Your task to perform on an android device: change the upload size in google photos Image 0: 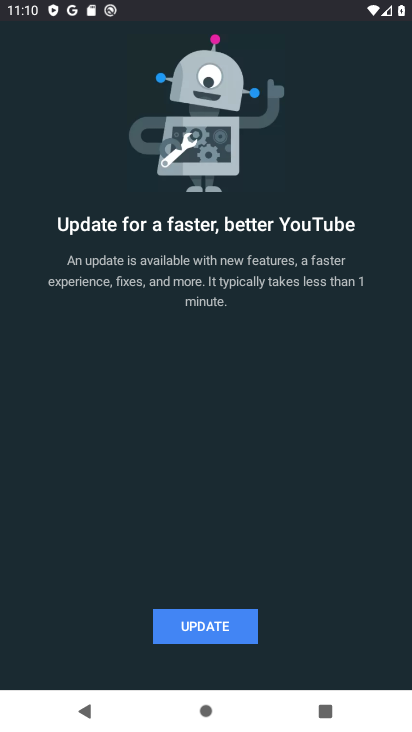
Step 0: press home button
Your task to perform on an android device: change the upload size in google photos Image 1: 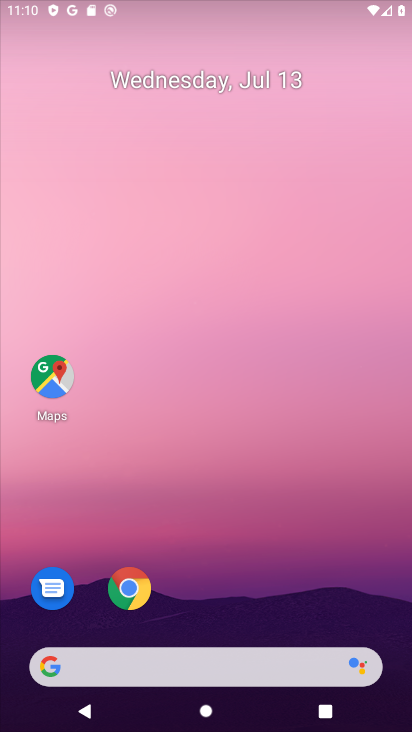
Step 1: drag from (236, 611) to (263, 94)
Your task to perform on an android device: change the upload size in google photos Image 2: 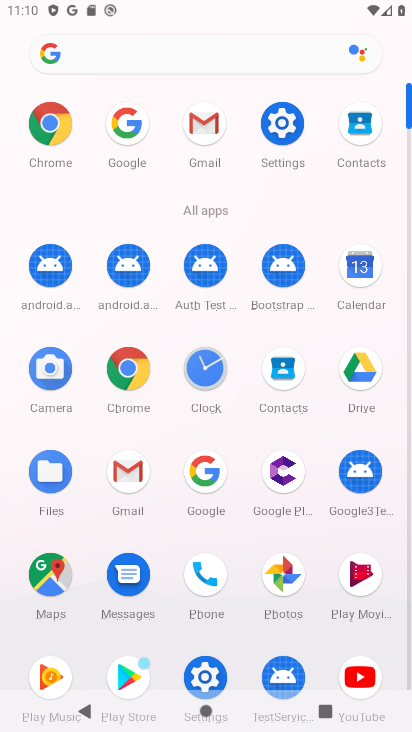
Step 2: click (281, 582)
Your task to perform on an android device: change the upload size in google photos Image 3: 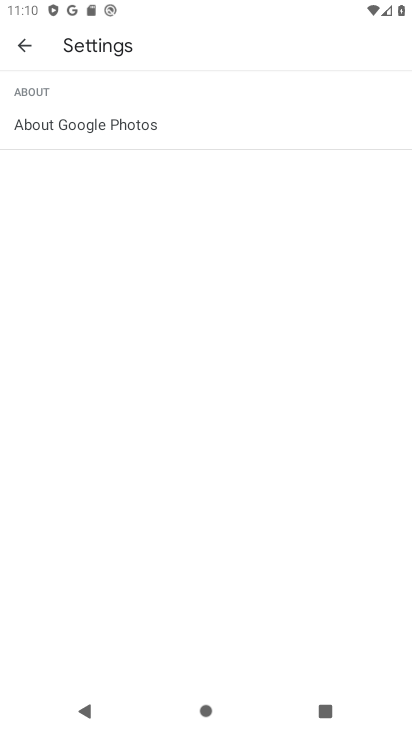
Step 3: press back button
Your task to perform on an android device: change the upload size in google photos Image 4: 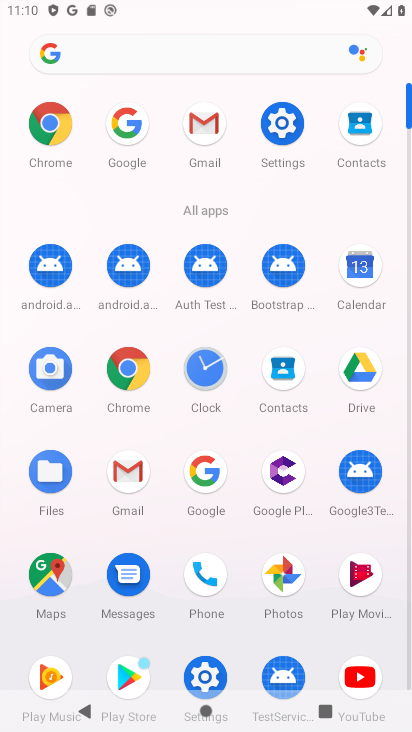
Step 4: click (283, 569)
Your task to perform on an android device: change the upload size in google photos Image 5: 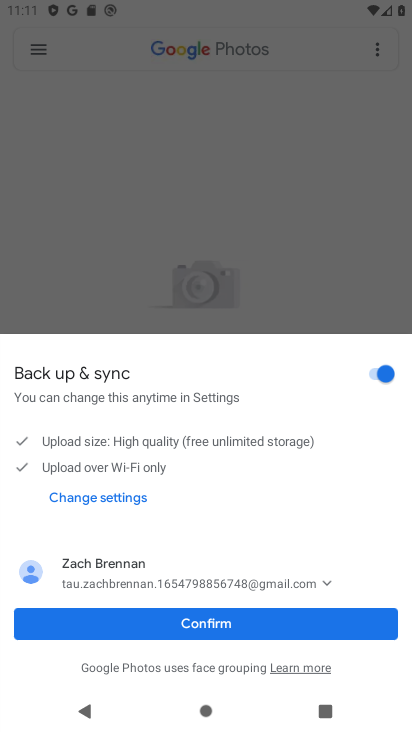
Step 5: click (204, 621)
Your task to perform on an android device: change the upload size in google photos Image 6: 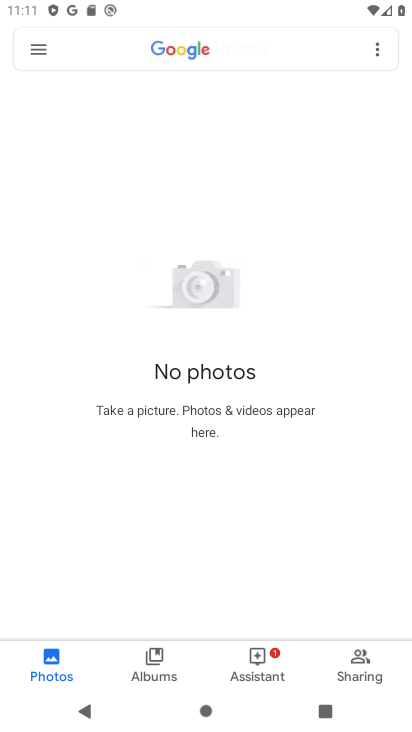
Step 6: click (35, 46)
Your task to perform on an android device: change the upload size in google photos Image 7: 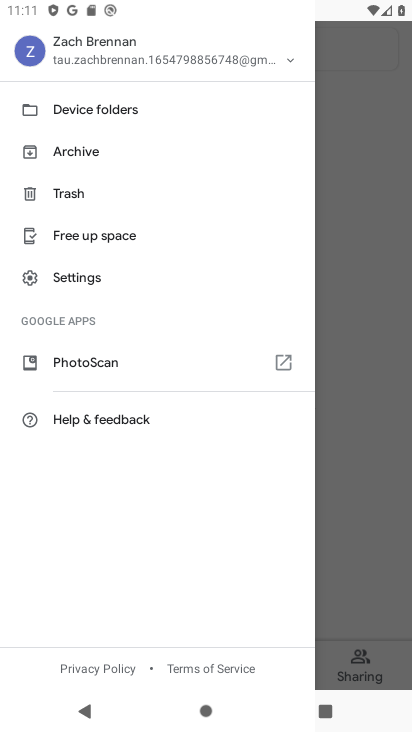
Step 7: click (72, 287)
Your task to perform on an android device: change the upload size in google photos Image 8: 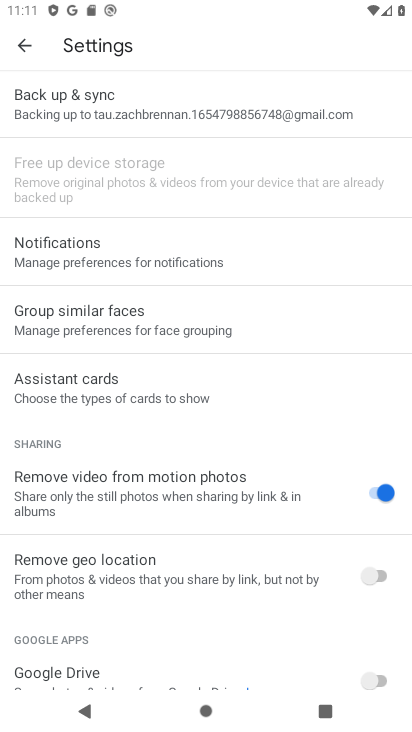
Step 8: click (93, 112)
Your task to perform on an android device: change the upload size in google photos Image 9: 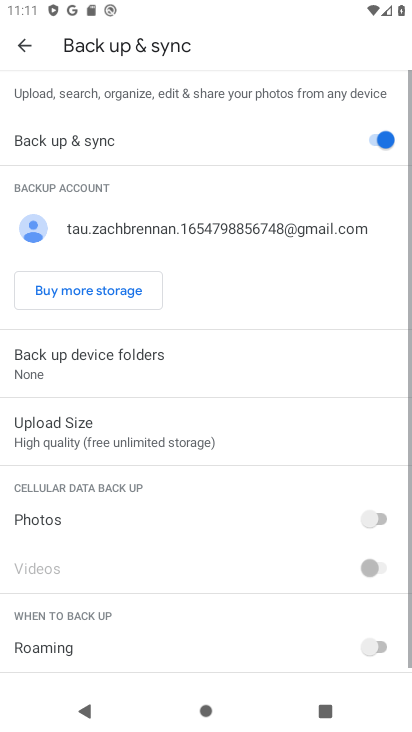
Step 9: click (51, 433)
Your task to perform on an android device: change the upload size in google photos Image 10: 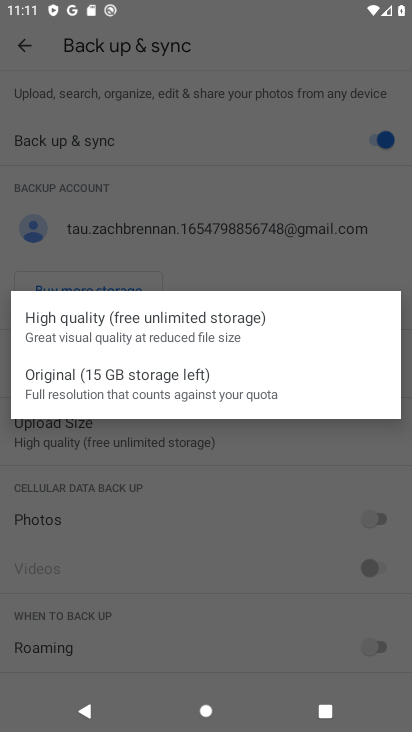
Step 10: click (102, 385)
Your task to perform on an android device: change the upload size in google photos Image 11: 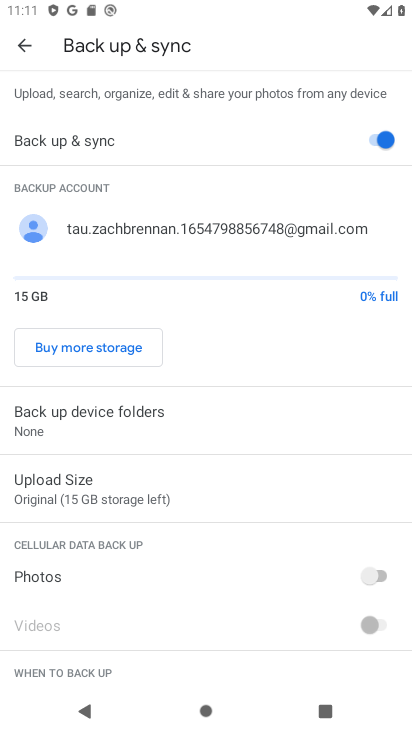
Step 11: task complete